Your task to perform on an android device: Is it going to rain today? Image 0: 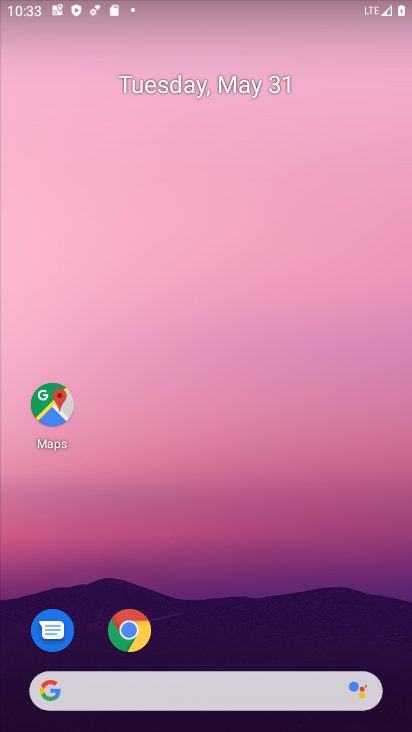
Step 0: drag from (212, 683) to (266, 330)
Your task to perform on an android device: Is it going to rain today? Image 1: 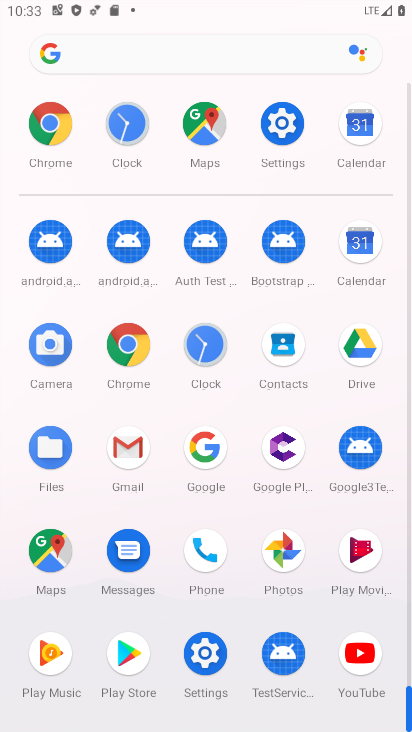
Step 1: drag from (240, 568) to (277, 360)
Your task to perform on an android device: Is it going to rain today? Image 2: 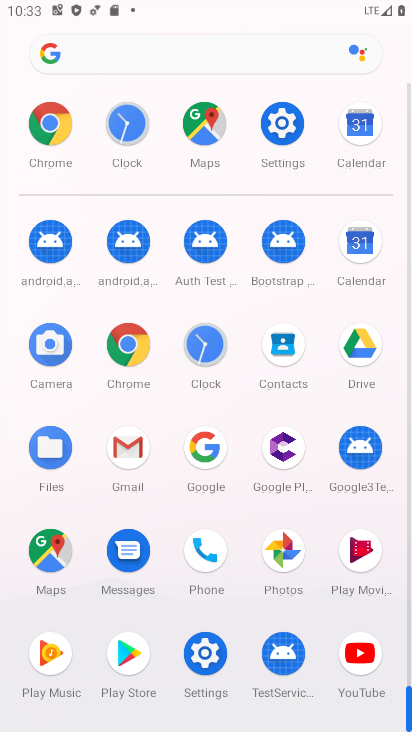
Step 2: click (213, 479)
Your task to perform on an android device: Is it going to rain today? Image 3: 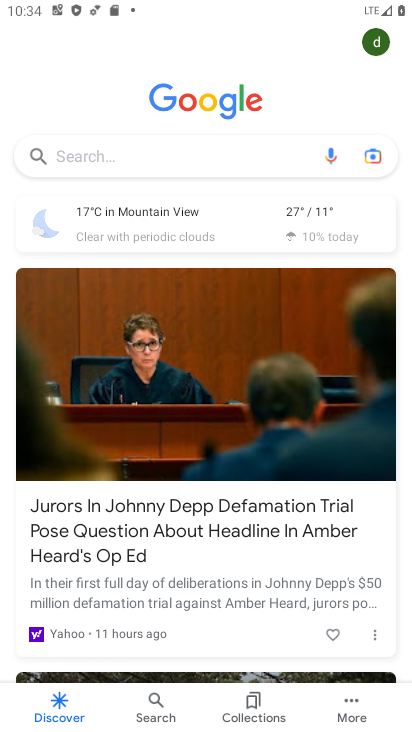
Step 3: click (188, 164)
Your task to perform on an android device: Is it going to rain today? Image 4: 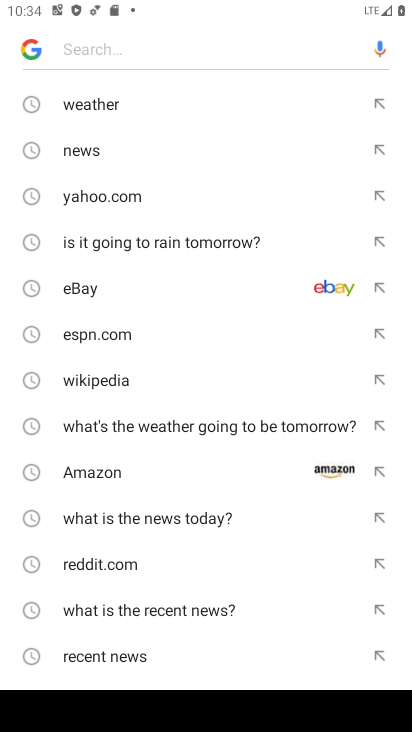
Step 4: click (192, 102)
Your task to perform on an android device: Is it going to rain today? Image 5: 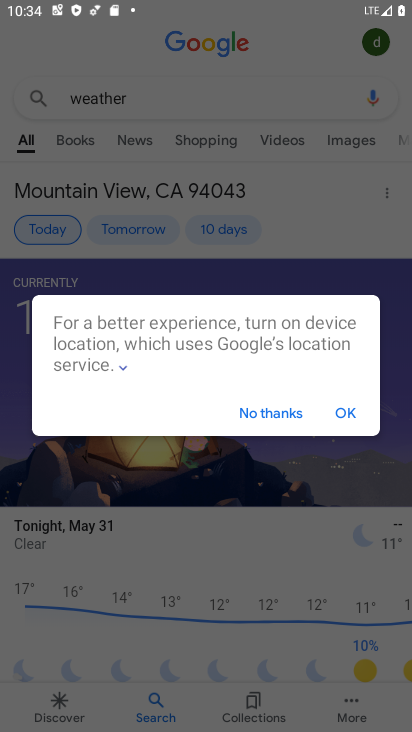
Step 5: click (344, 421)
Your task to perform on an android device: Is it going to rain today? Image 6: 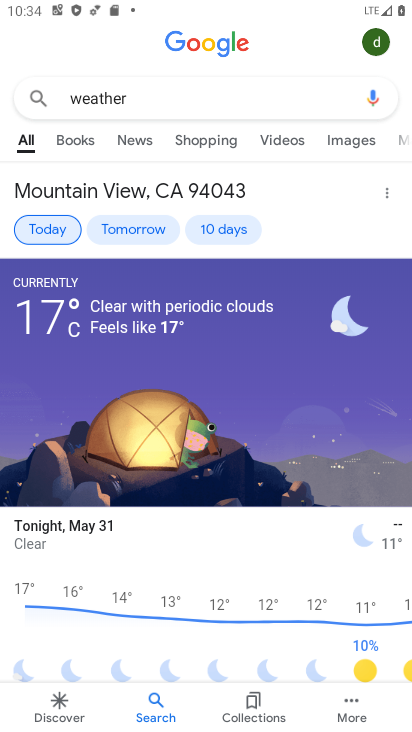
Step 6: task complete